Your task to perform on an android device: move an email to a new category in the gmail app Image 0: 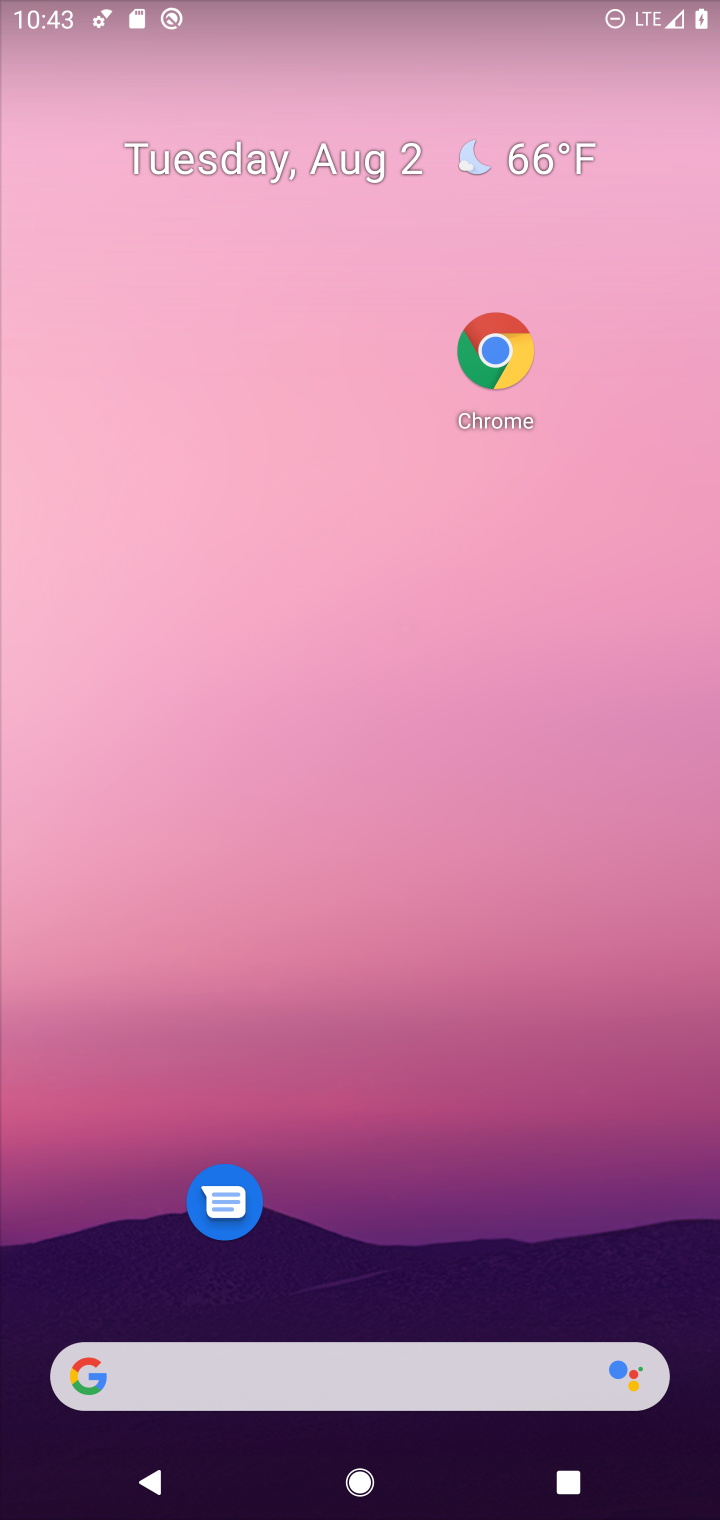
Step 0: drag from (366, 1275) to (380, 53)
Your task to perform on an android device: move an email to a new category in the gmail app Image 1: 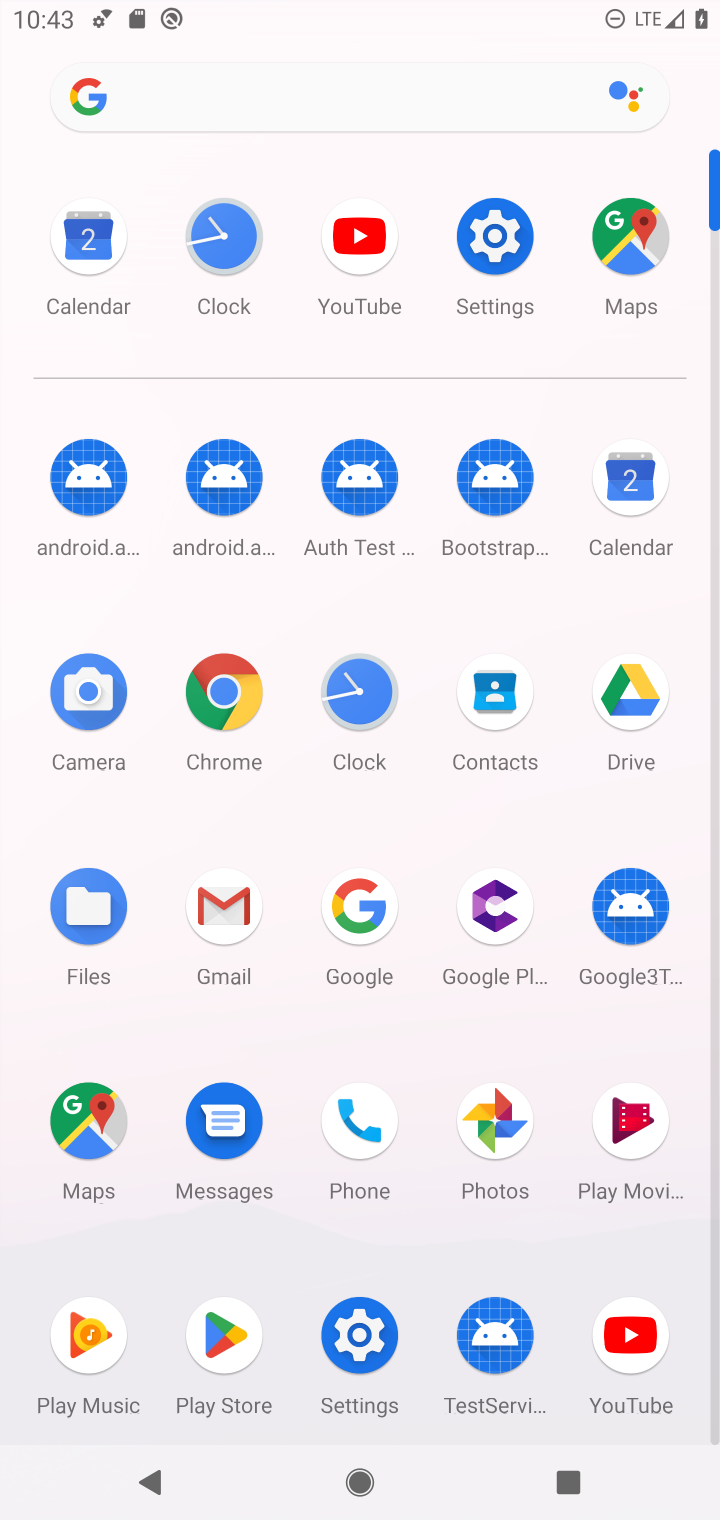
Step 1: click (223, 909)
Your task to perform on an android device: move an email to a new category in the gmail app Image 2: 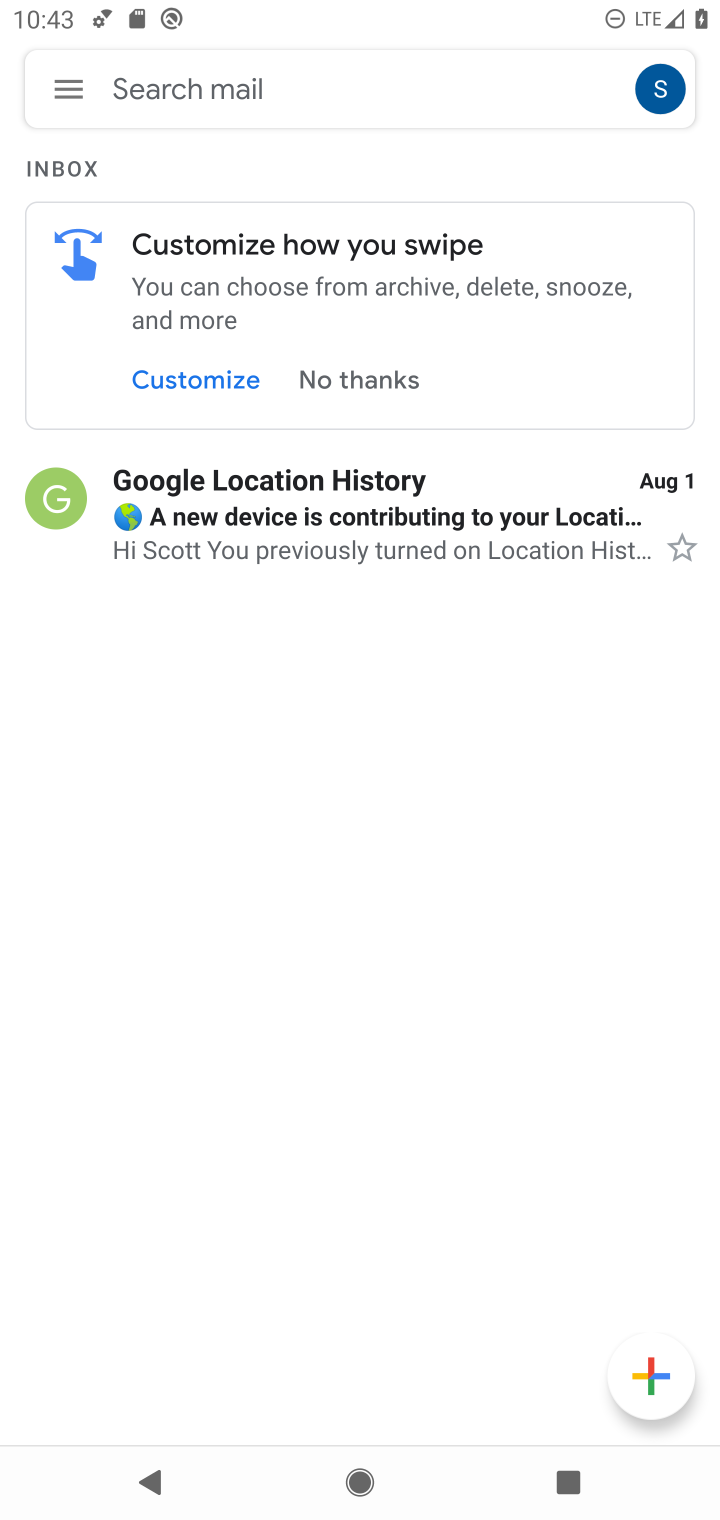
Step 2: click (64, 99)
Your task to perform on an android device: move an email to a new category in the gmail app Image 3: 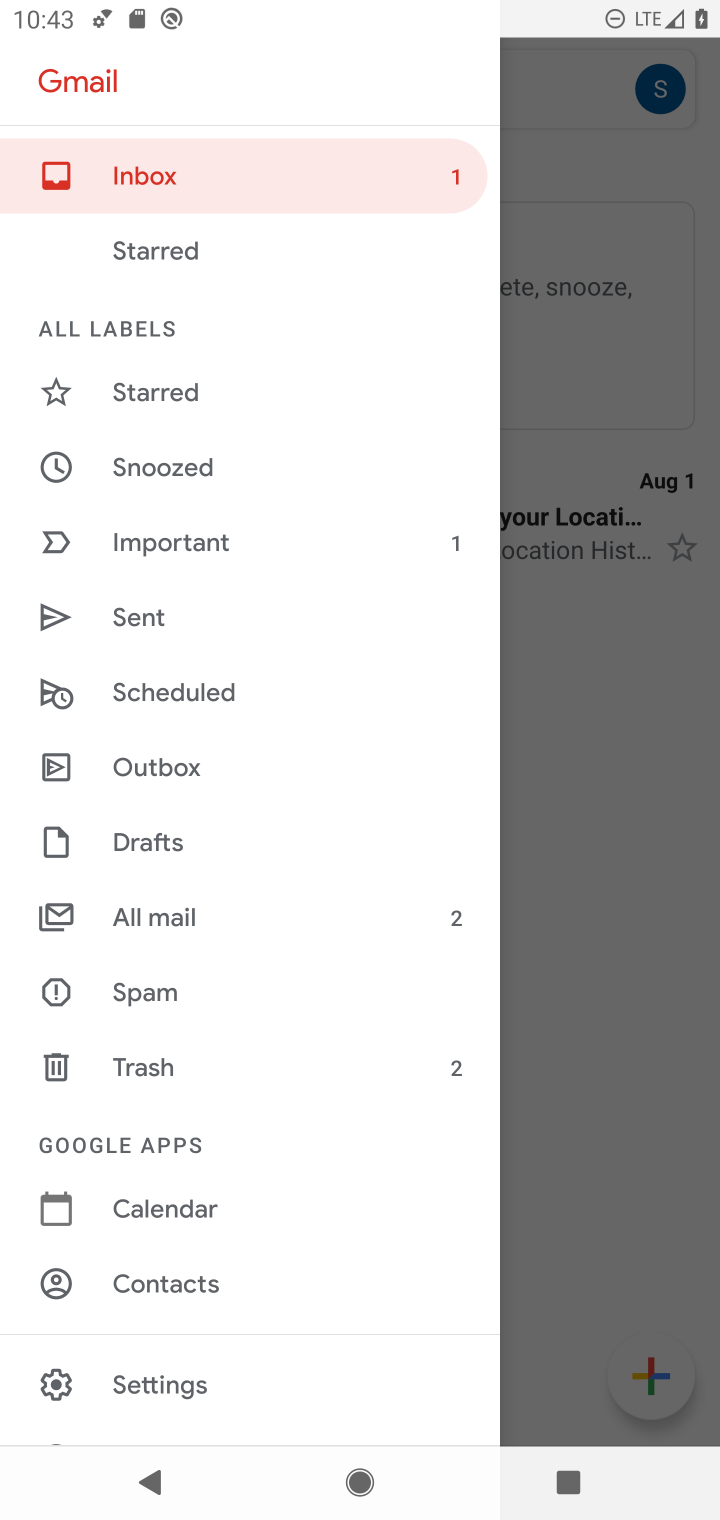
Step 3: click (195, 940)
Your task to perform on an android device: move an email to a new category in the gmail app Image 4: 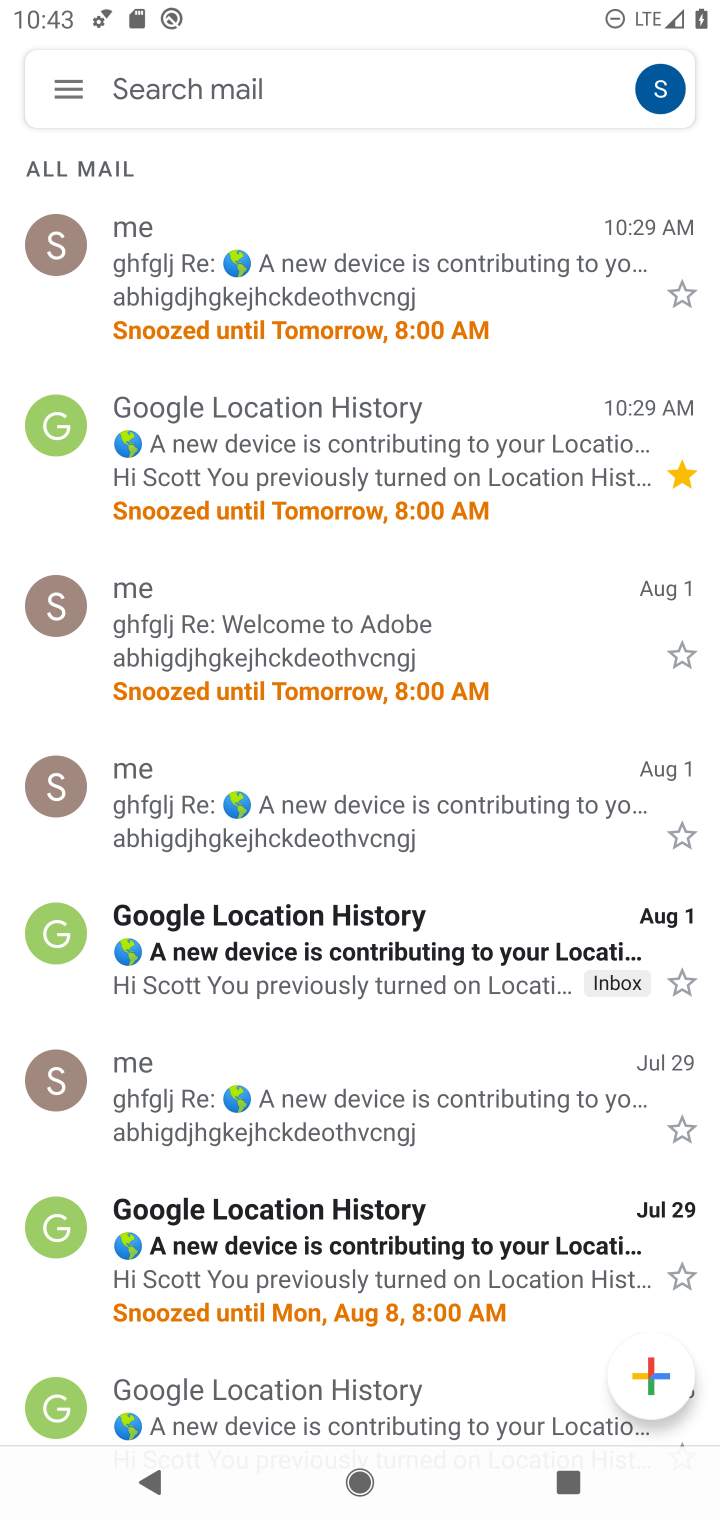
Step 4: click (295, 816)
Your task to perform on an android device: move an email to a new category in the gmail app Image 5: 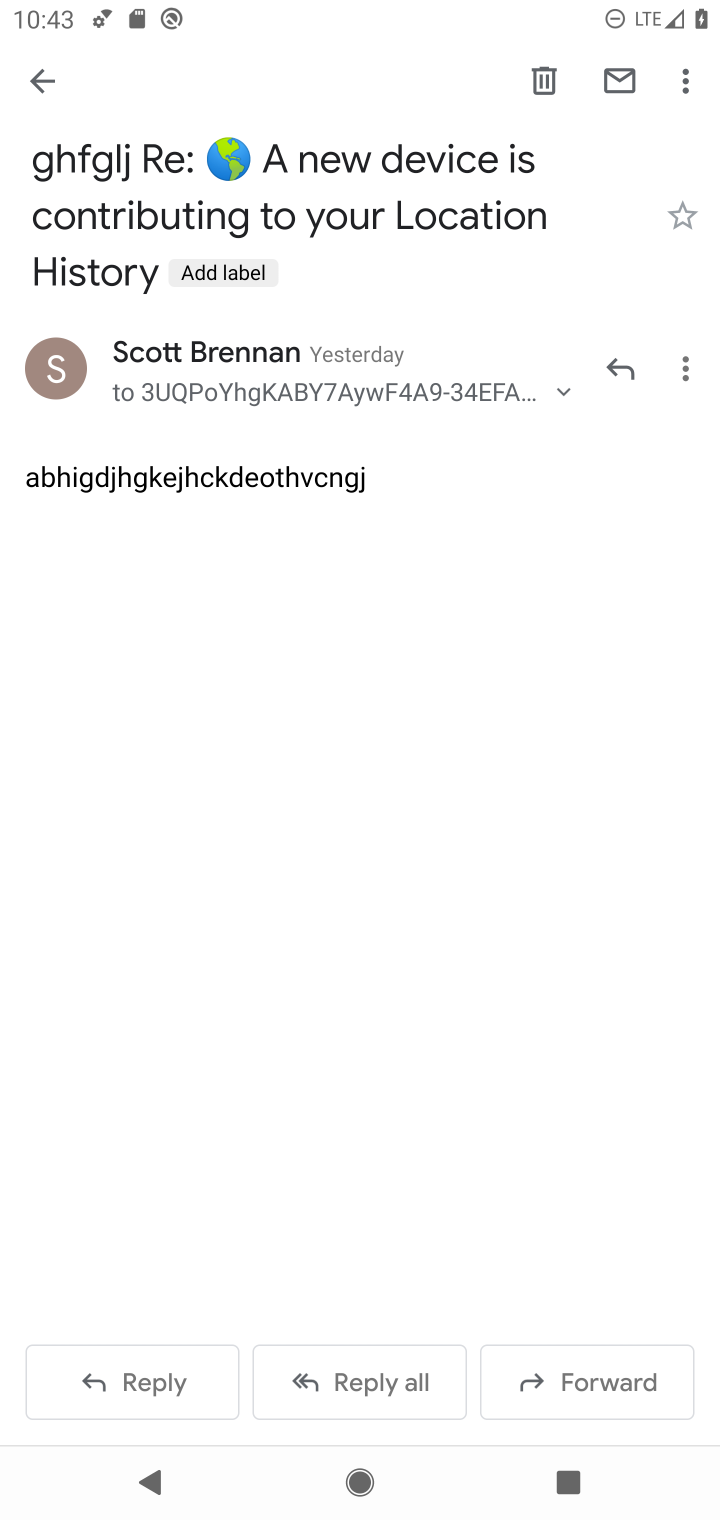
Step 5: click (682, 63)
Your task to perform on an android device: move an email to a new category in the gmail app Image 6: 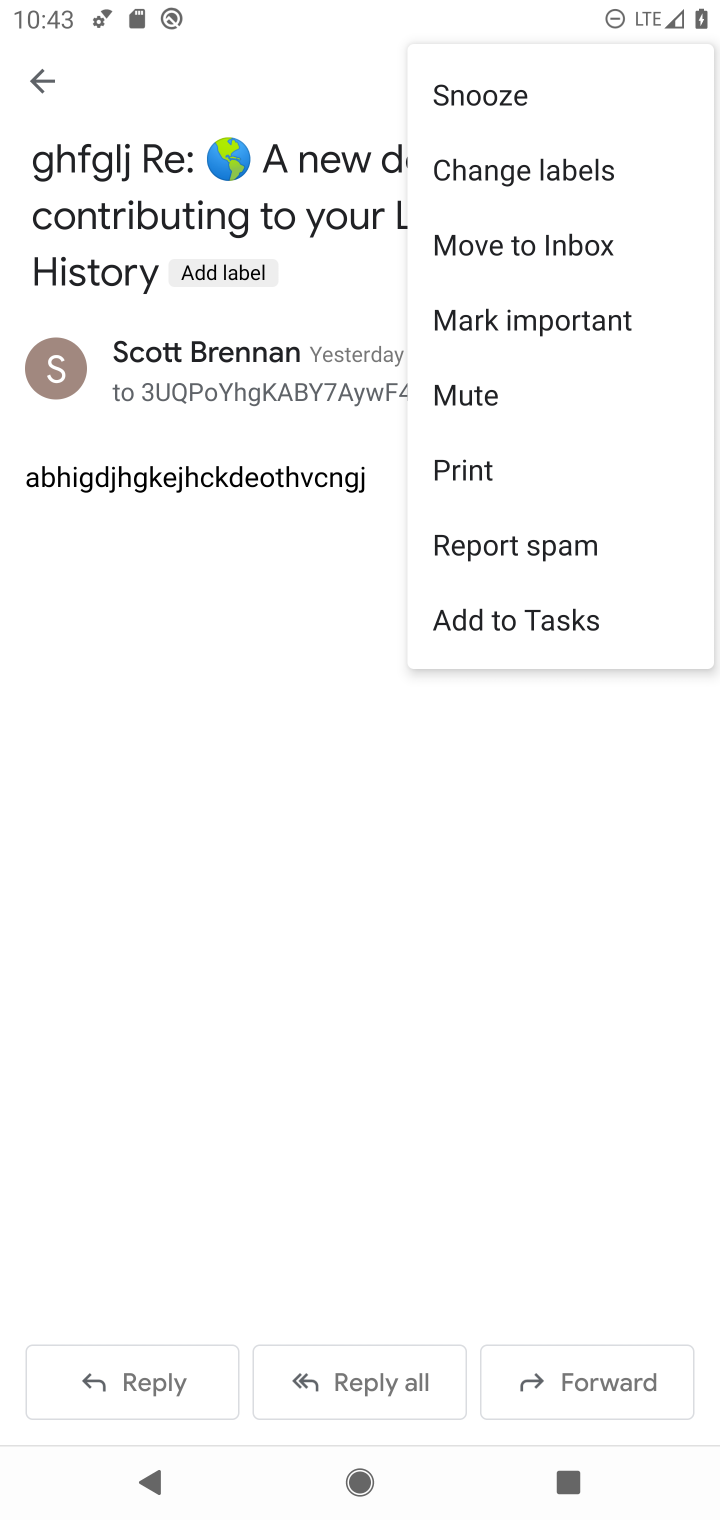
Step 6: click (502, 320)
Your task to perform on an android device: move an email to a new category in the gmail app Image 7: 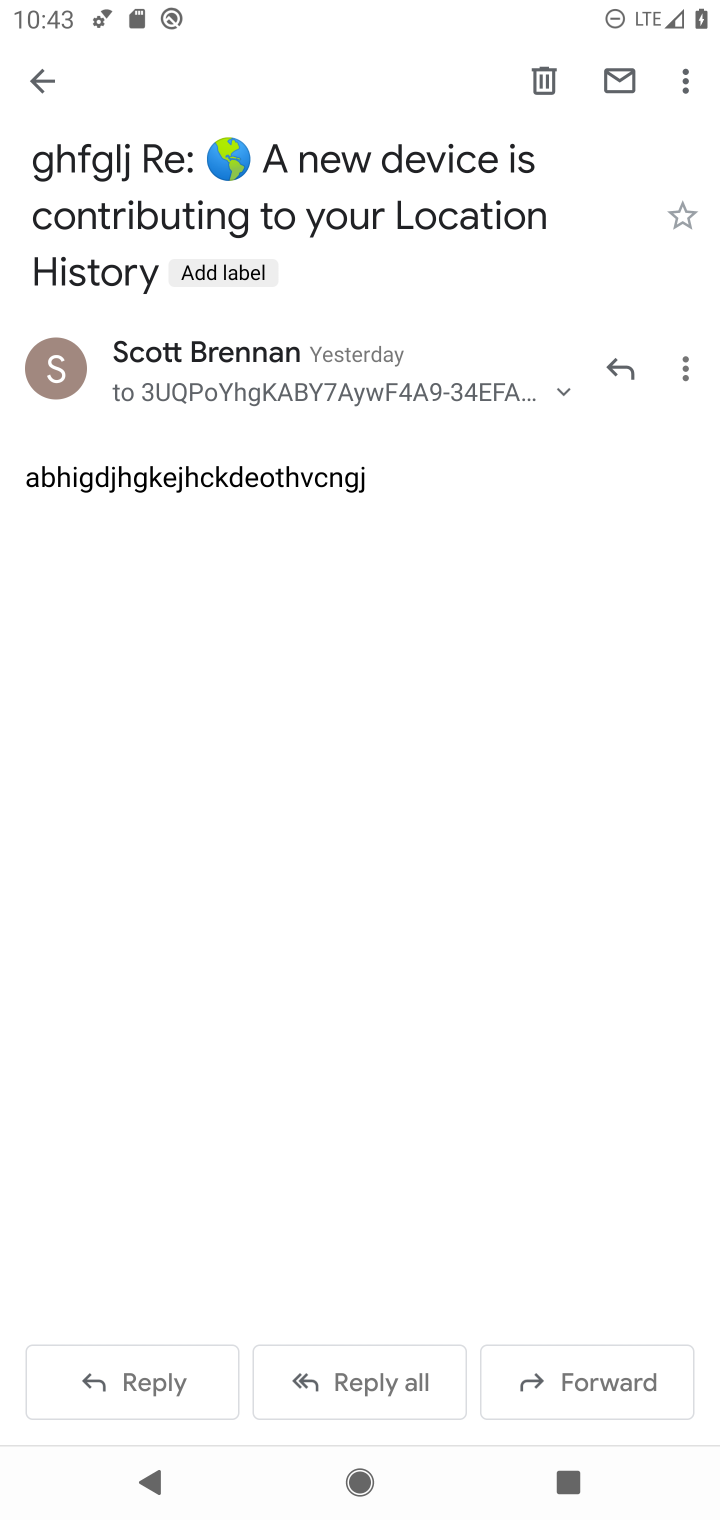
Step 7: task complete